Your task to perform on an android device: Go to display settings Image 0: 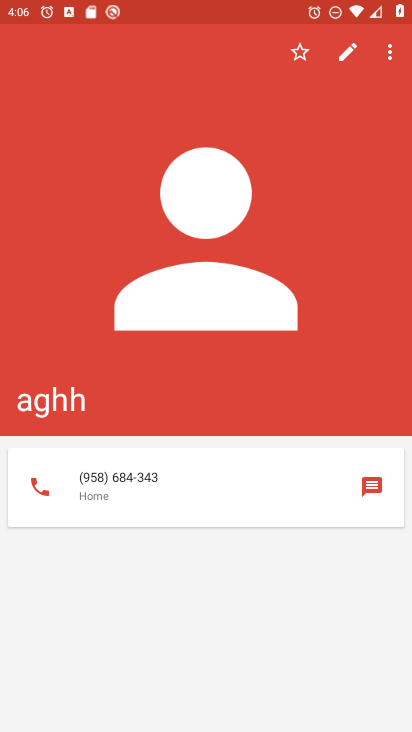
Step 0: press home button
Your task to perform on an android device: Go to display settings Image 1: 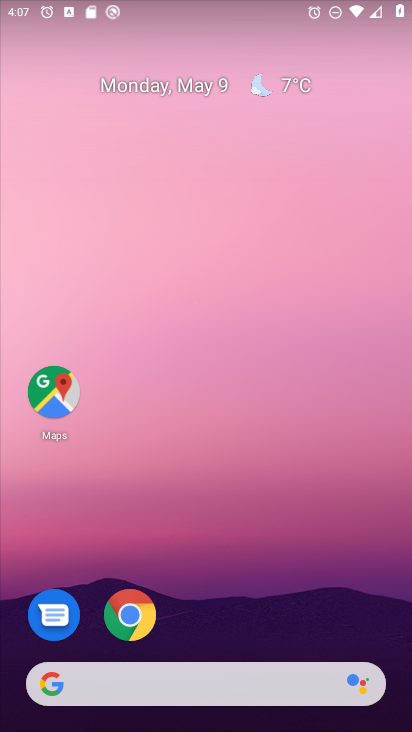
Step 1: drag from (390, 639) to (325, 121)
Your task to perform on an android device: Go to display settings Image 2: 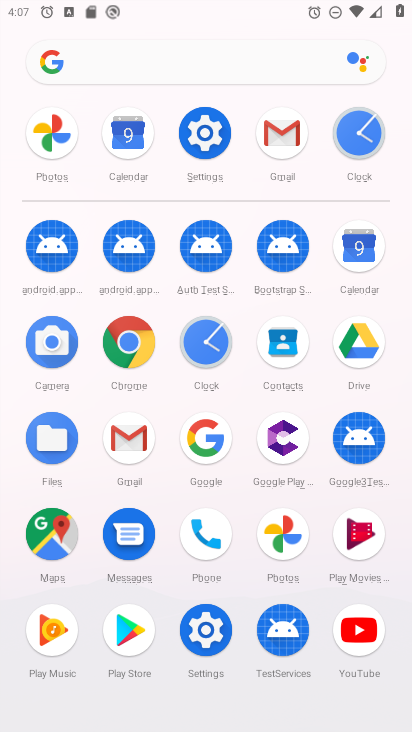
Step 2: click (201, 630)
Your task to perform on an android device: Go to display settings Image 3: 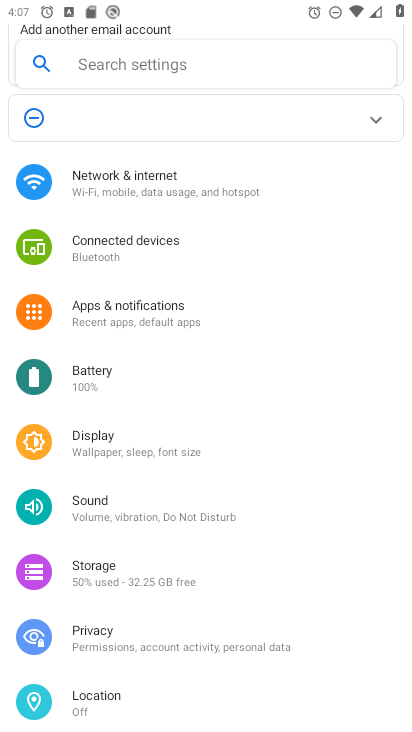
Step 3: click (89, 431)
Your task to perform on an android device: Go to display settings Image 4: 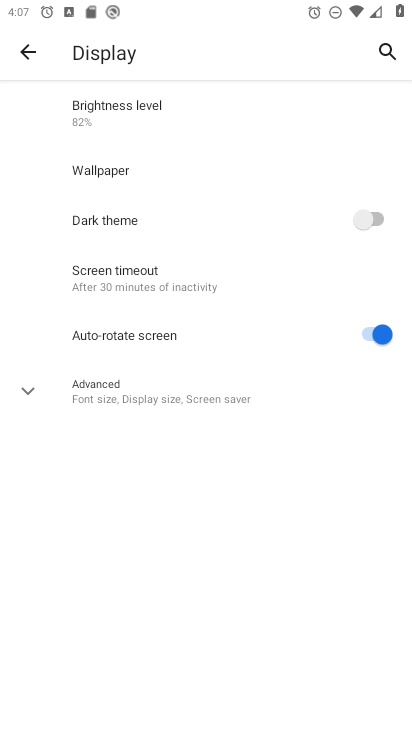
Step 4: click (22, 382)
Your task to perform on an android device: Go to display settings Image 5: 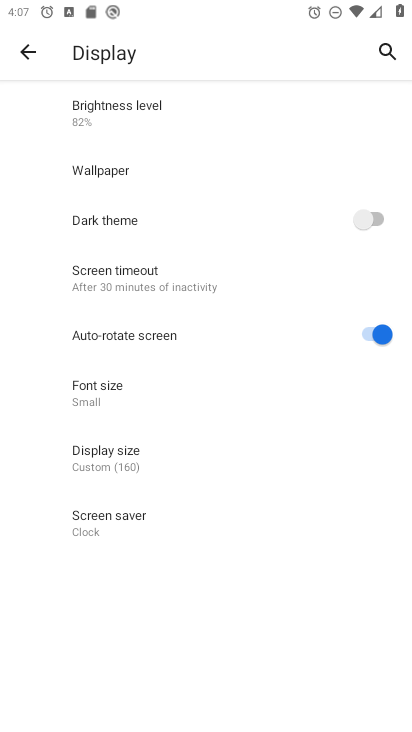
Step 5: task complete